Your task to perform on an android device: delete browsing data in the chrome app Image 0: 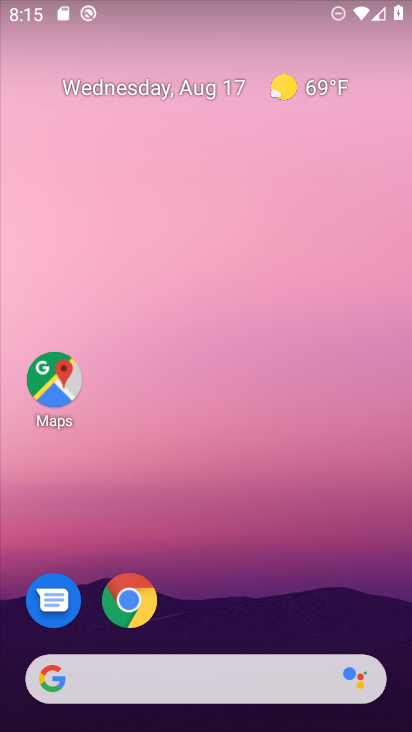
Step 0: press home button
Your task to perform on an android device: delete browsing data in the chrome app Image 1: 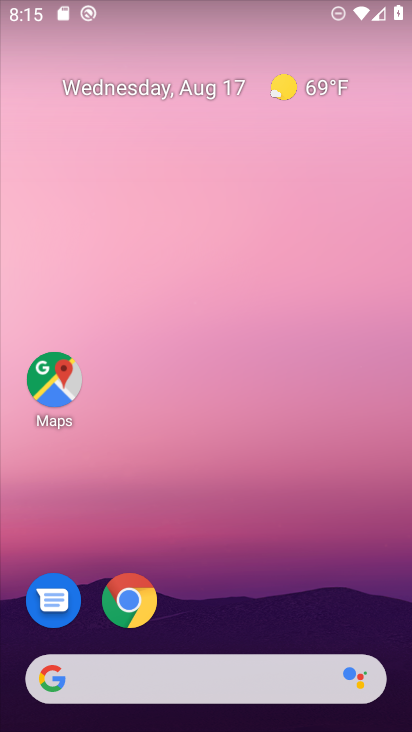
Step 1: click (128, 587)
Your task to perform on an android device: delete browsing data in the chrome app Image 2: 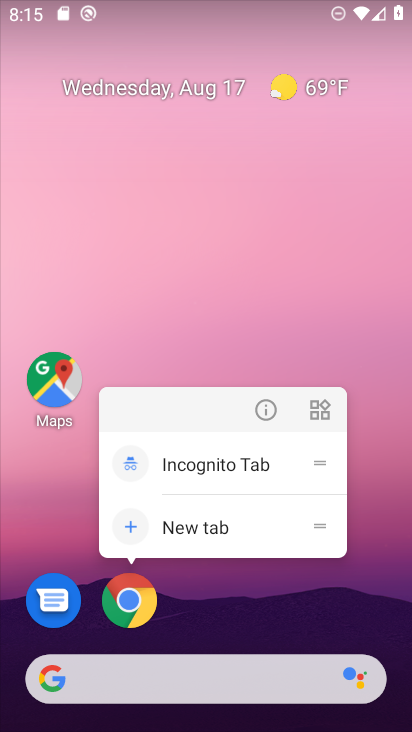
Step 2: click (128, 587)
Your task to perform on an android device: delete browsing data in the chrome app Image 3: 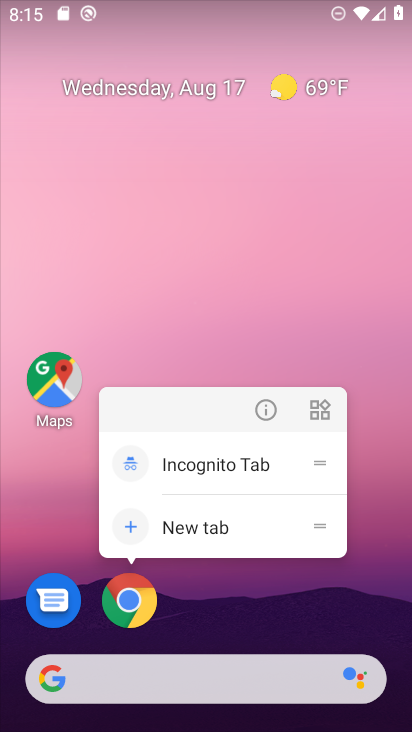
Step 3: click (142, 621)
Your task to perform on an android device: delete browsing data in the chrome app Image 4: 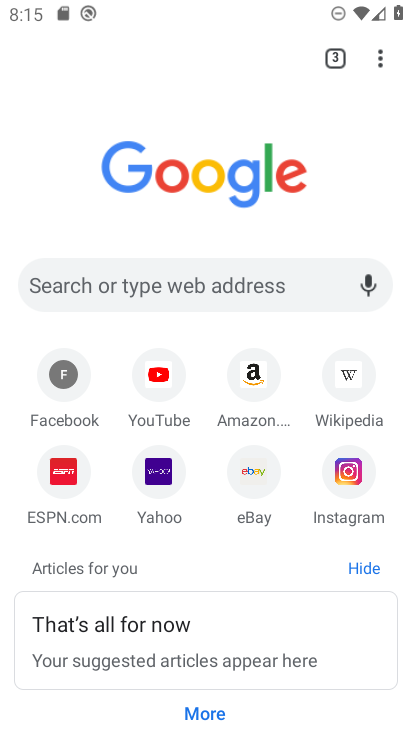
Step 4: drag from (373, 53) to (190, 500)
Your task to perform on an android device: delete browsing data in the chrome app Image 5: 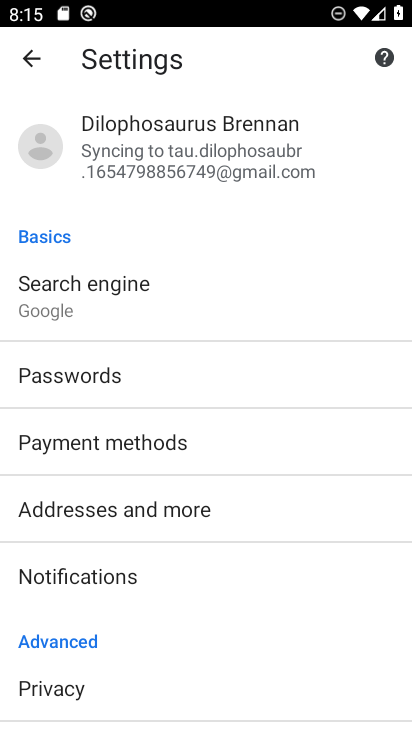
Step 5: click (86, 685)
Your task to perform on an android device: delete browsing data in the chrome app Image 6: 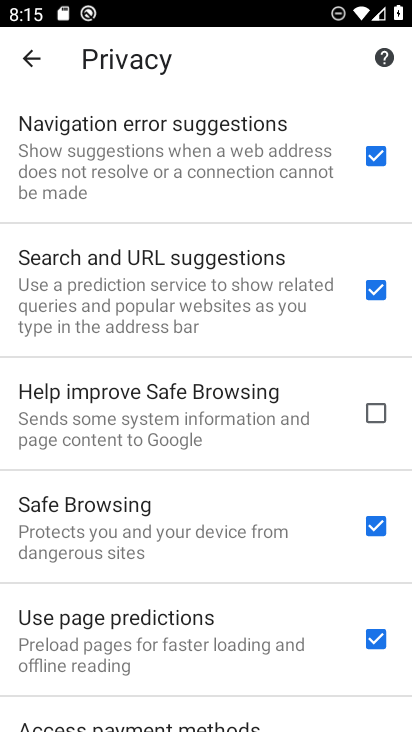
Step 6: drag from (142, 670) to (109, 264)
Your task to perform on an android device: delete browsing data in the chrome app Image 7: 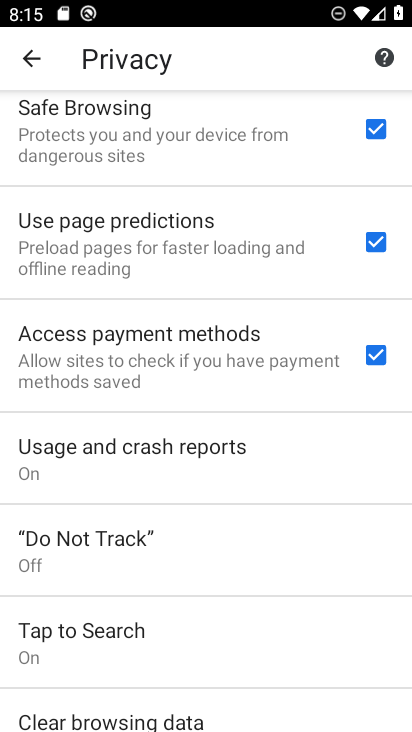
Step 7: click (168, 723)
Your task to perform on an android device: delete browsing data in the chrome app Image 8: 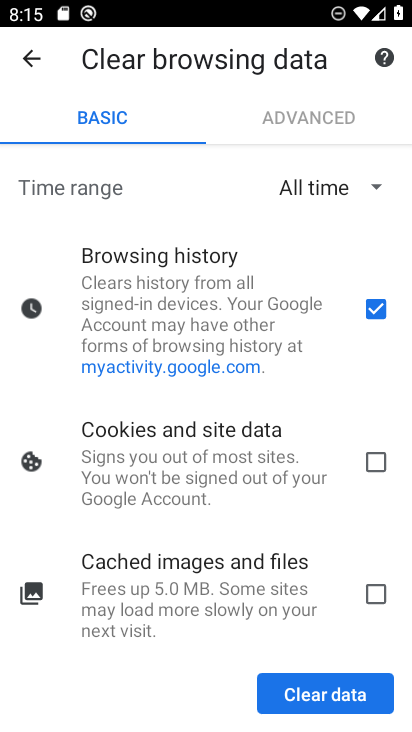
Step 8: click (359, 705)
Your task to perform on an android device: delete browsing data in the chrome app Image 9: 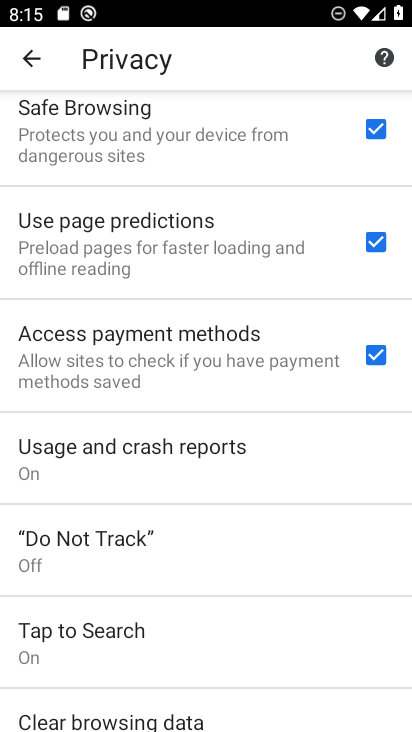
Step 9: task complete